Your task to perform on an android device: make emails show in primary in the gmail app Image 0: 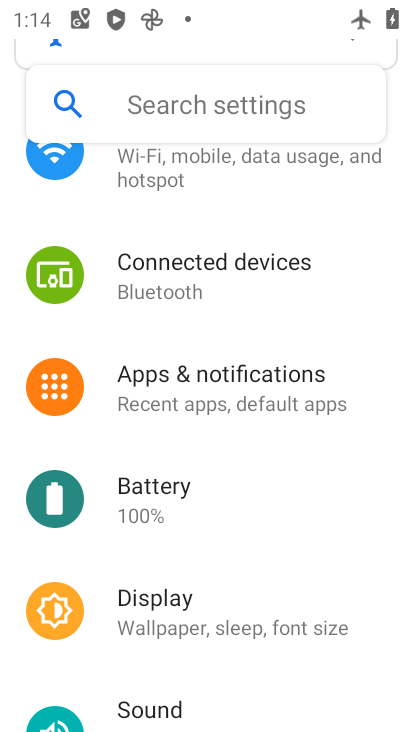
Step 0: press home button
Your task to perform on an android device: make emails show in primary in the gmail app Image 1: 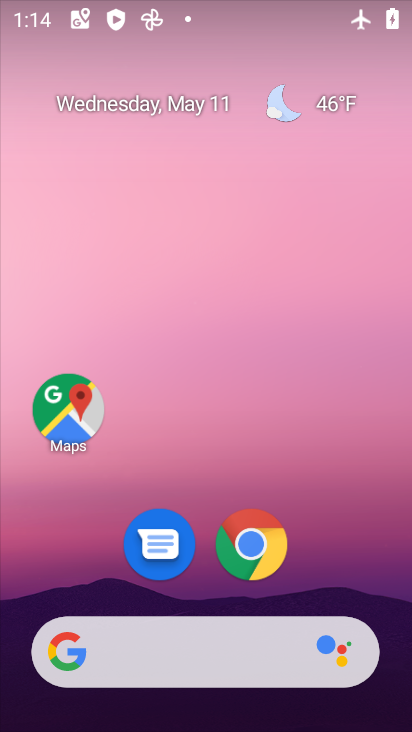
Step 1: drag from (399, 648) to (317, 44)
Your task to perform on an android device: make emails show in primary in the gmail app Image 2: 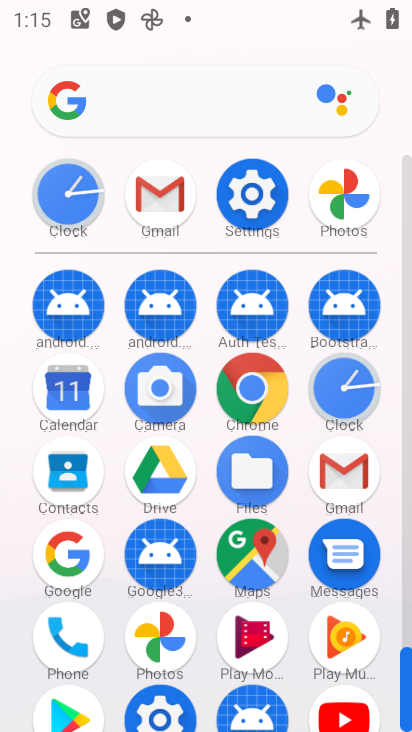
Step 2: click (340, 465)
Your task to perform on an android device: make emails show in primary in the gmail app Image 3: 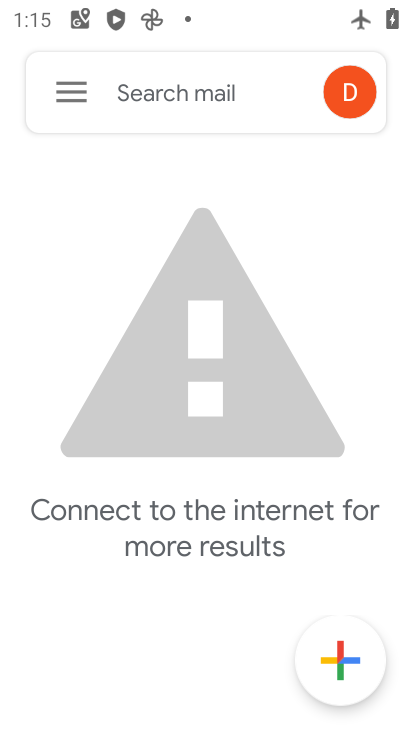
Step 3: click (68, 93)
Your task to perform on an android device: make emails show in primary in the gmail app Image 4: 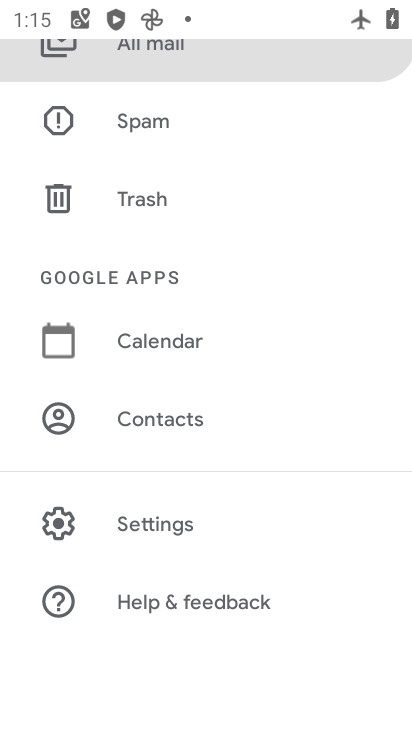
Step 4: click (141, 525)
Your task to perform on an android device: make emails show in primary in the gmail app Image 5: 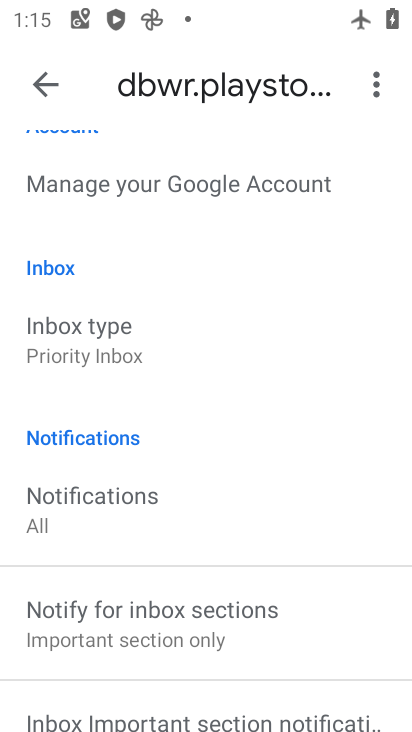
Step 5: click (70, 329)
Your task to perform on an android device: make emails show in primary in the gmail app Image 6: 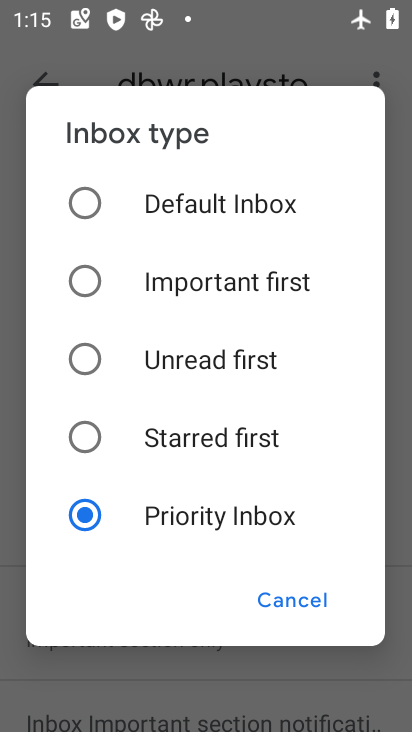
Step 6: click (85, 205)
Your task to perform on an android device: make emails show in primary in the gmail app Image 7: 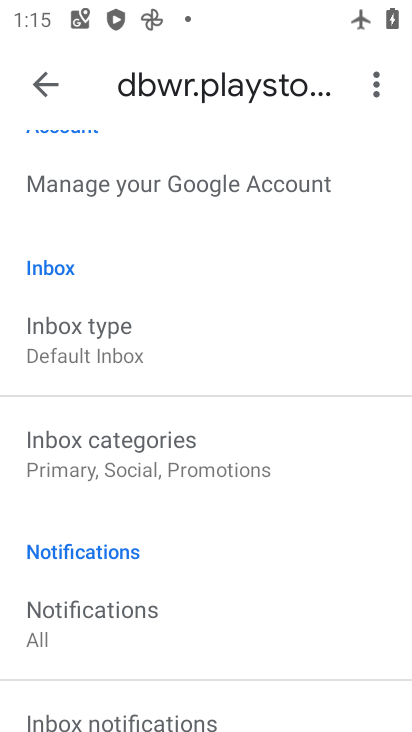
Step 7: click (102, 430)
Your task to perform on an android device: make emails show in primary in the gmail app Image 8: 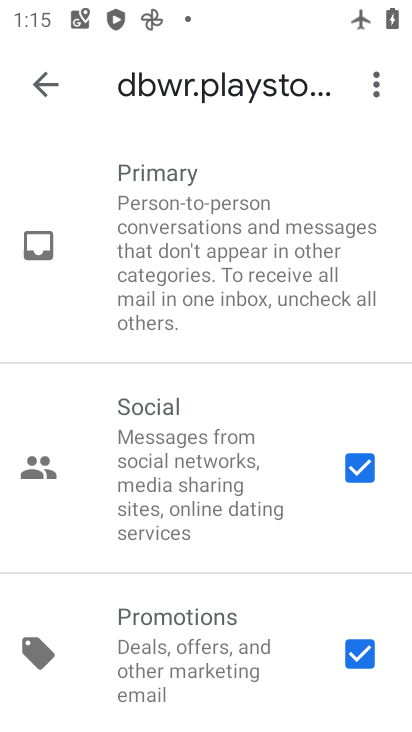
Step 8: click (352, 466)
Your task to perform on an android device: make emails show in primary in the gmail app Image 9: 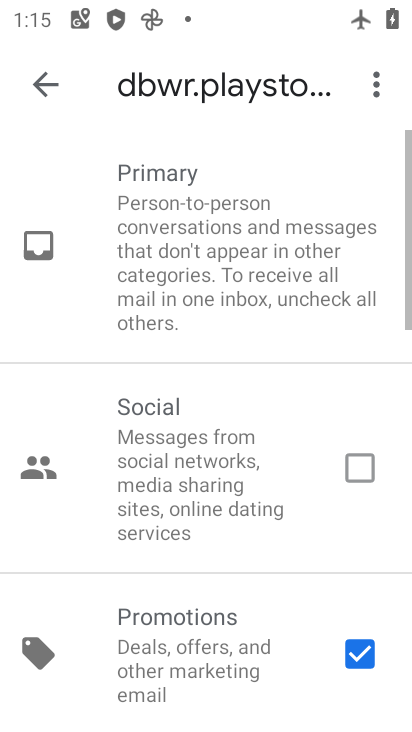
Step 9: click (359, 651)
Your task to perform on an android device: make emails show in primary in the gmail app Image 10: 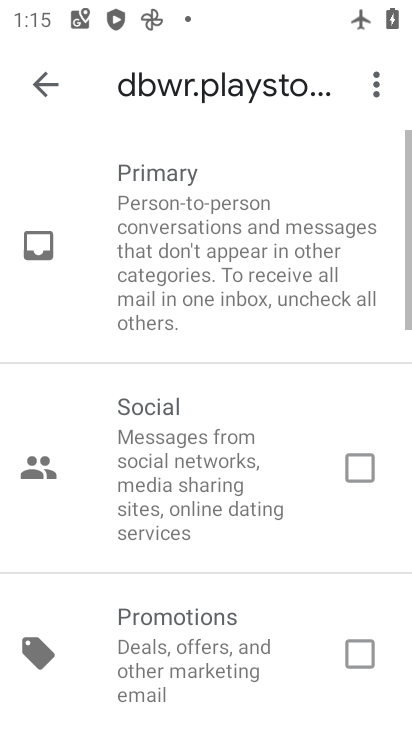
Step 10: task complete